Your task to perform on an android device: Go to Yahoo.com Image 0: 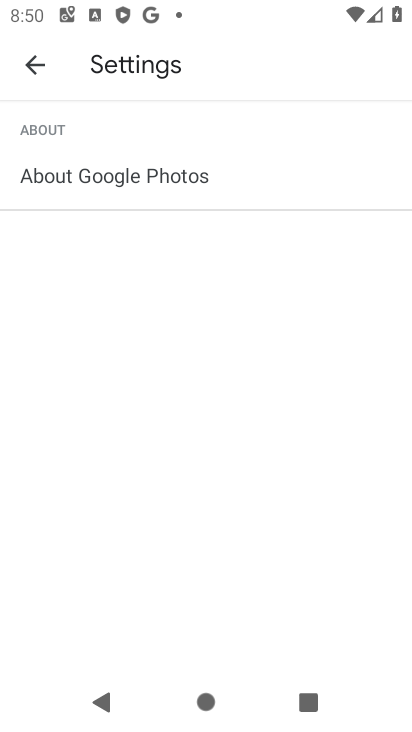
Step 0: press home button
Your task to perform on an android device: Go to Yahoo.com Image 1: 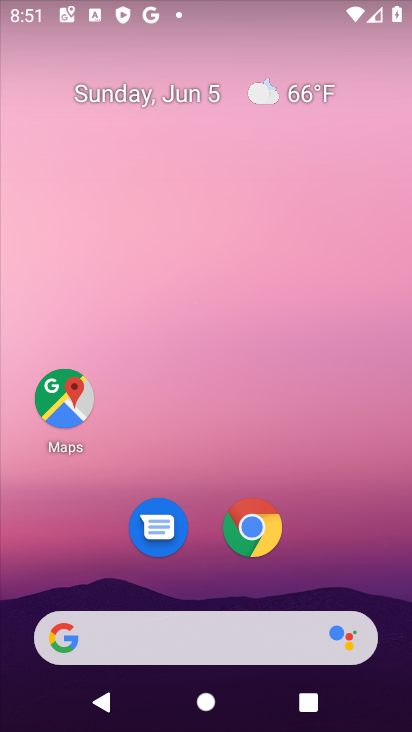
Step 1: click (252, 532)
Your task to perform on an android device: Go to Yahoo.com Image 2: 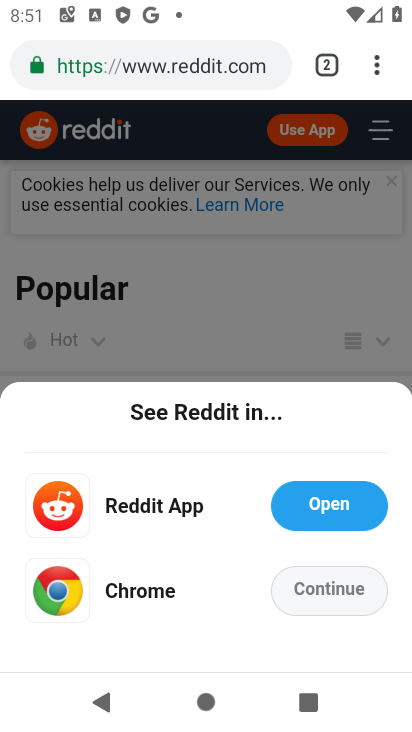
Step 2: click (323, 50)
Your task to perform on an android device: Go to Yahoo.com Image 3: 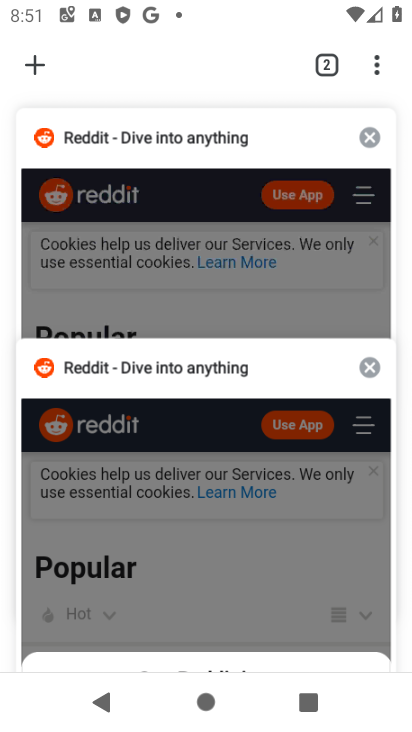
Step 3: click (47, 59)
Your task to perform on an android device: Go to Yahoo.com Image 4: 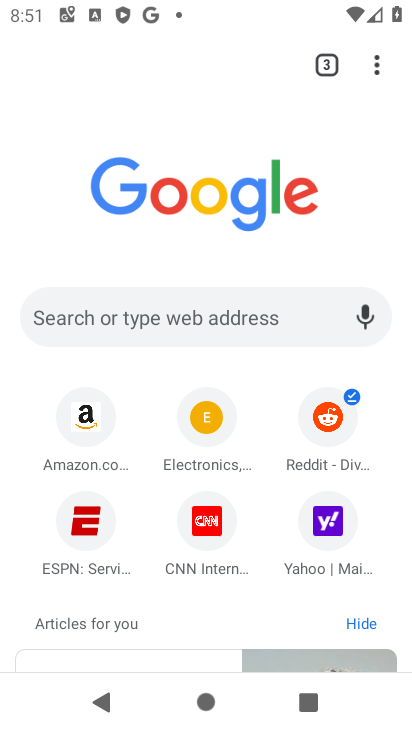
Step 4: click (333, 536)
Your task to perform on an android device: Go to Yahoo.com Image 5: 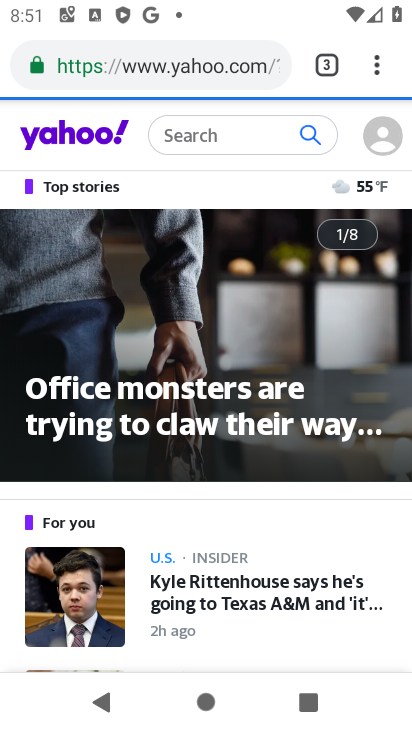
Step 5: task complete